Your task to perform on an android device: Show the shopping cart on walmart.com. Search for "duracell triple a" on walmart.com, select the first entry, add it to the cart, then select checkout. Image 0: 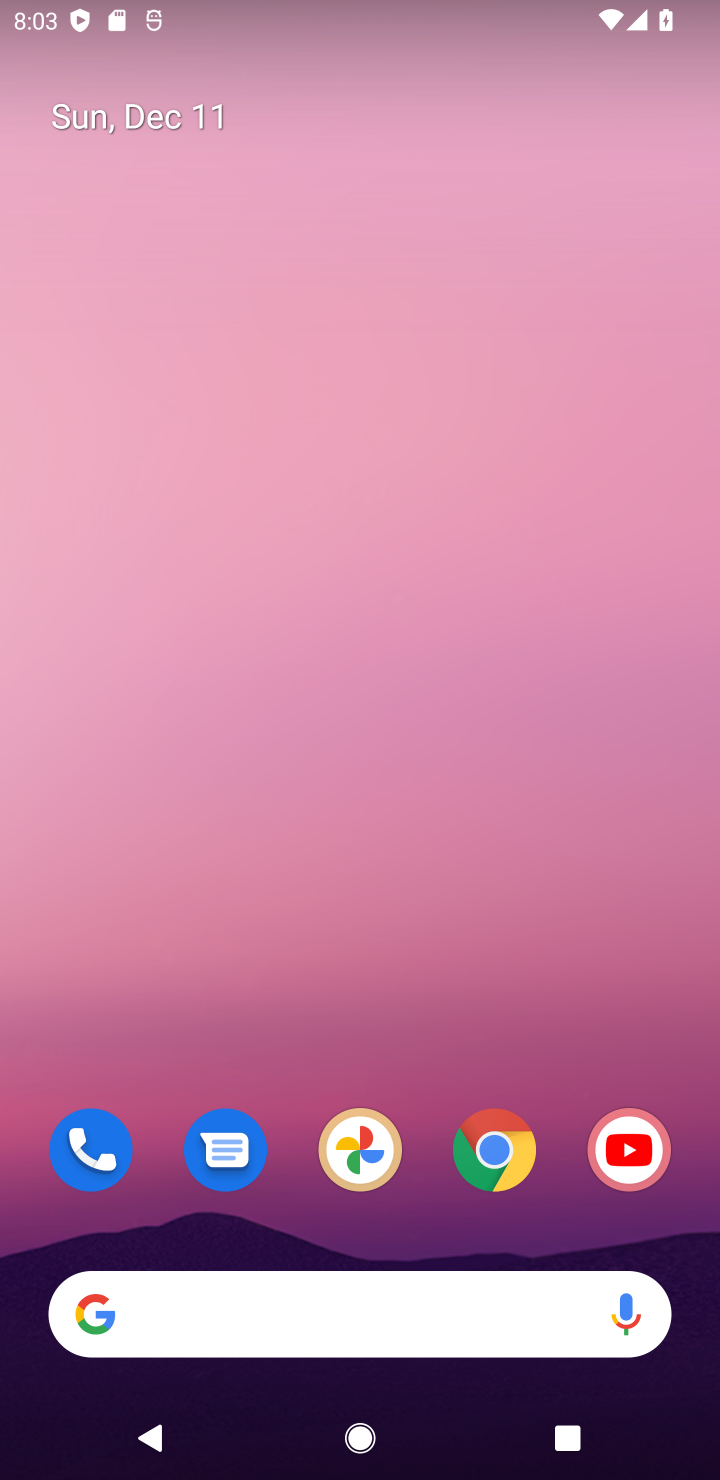
Step 0: click (488, 1150)
Your task to perform on an android device: Show the shopping cart on walmart.com. Search for "duracell triple a" on walmart.com, select the first entry, add it to the cart, then select checkout. Image 1: 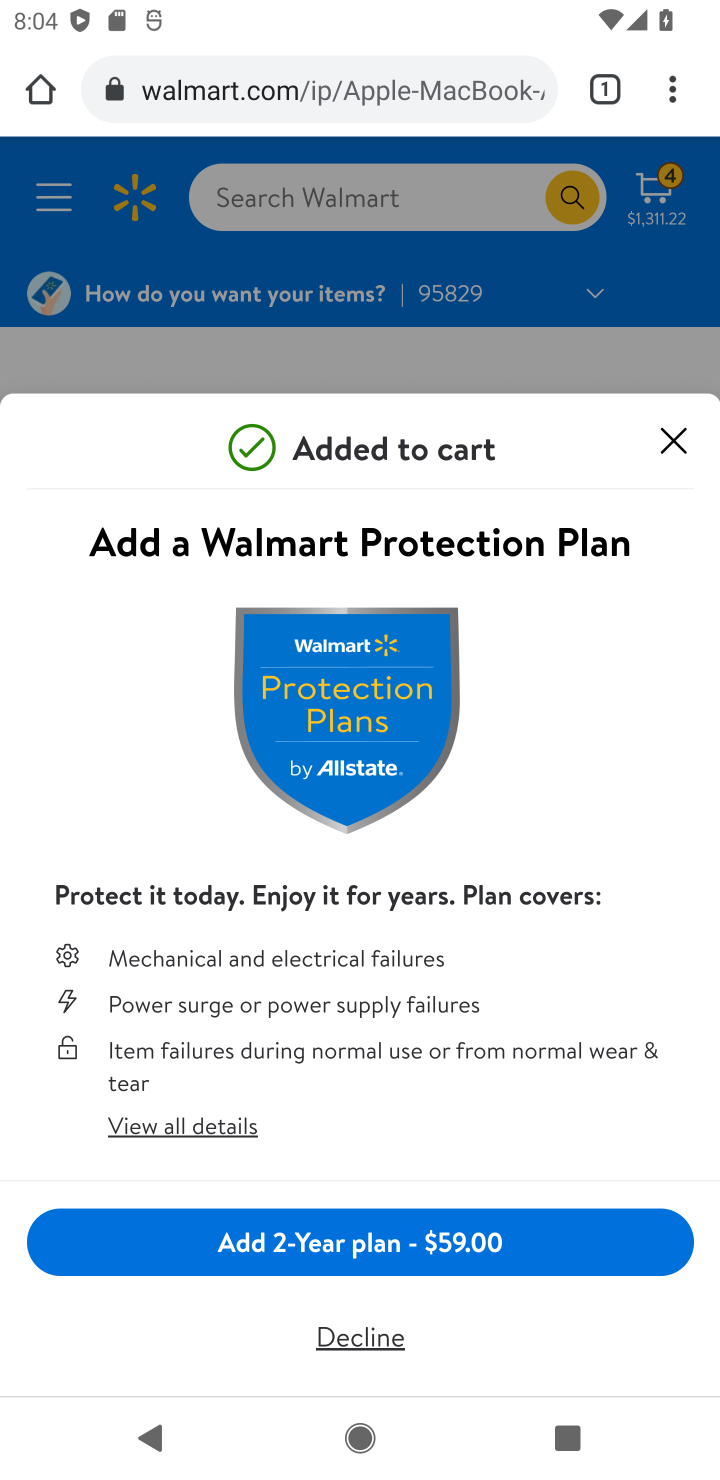
Step 1: click (408, 94)
Your task to perform on an android device: Show the shopping cart on walmart.com. Search for "duracell triple a" on walmart.com, select the first entry, add it to the cart, then select checkout. Image 2: 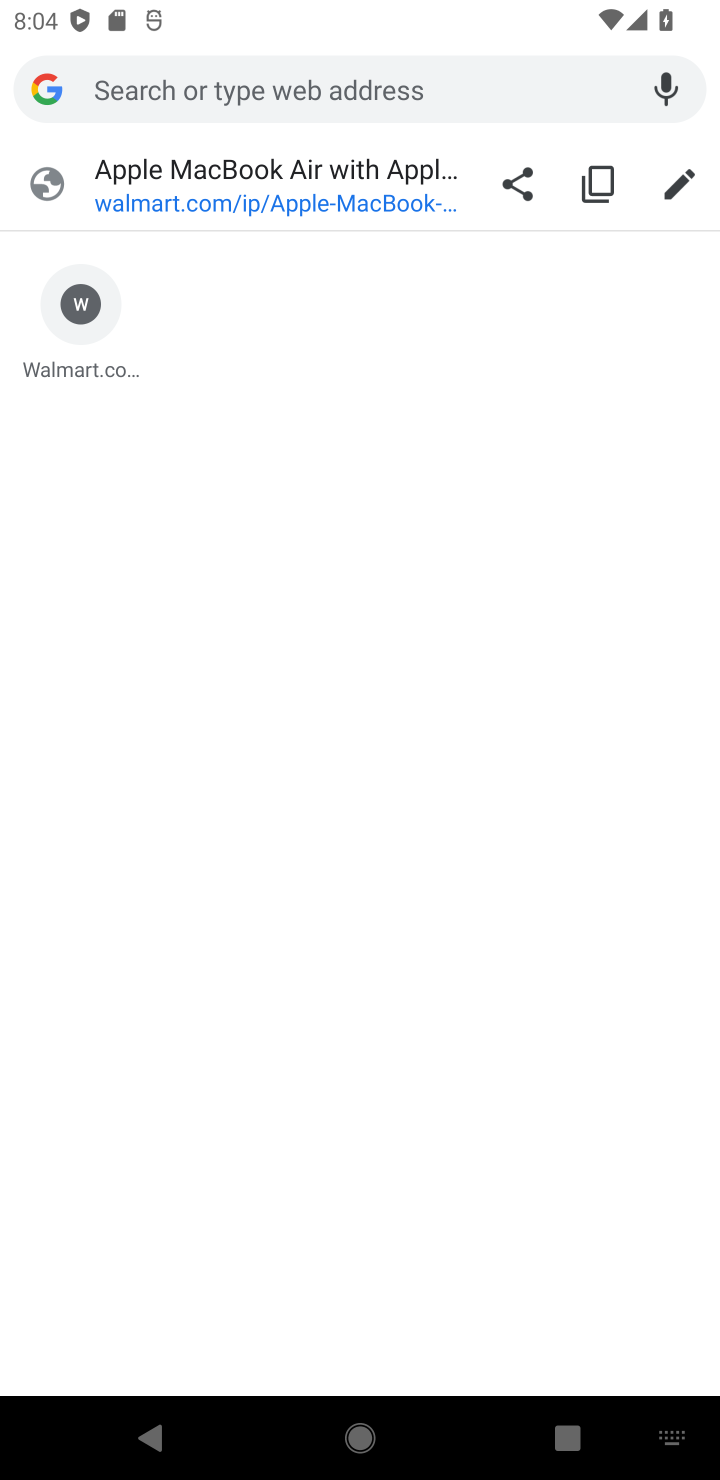
Step 2: type "walmart.com"
Your task to perform on an android device: Show the shopping cart on walmart.com. Search for "duracell triple a" on walmart.com, select the first entry, add it to the cart, then select checkout. Image 3: 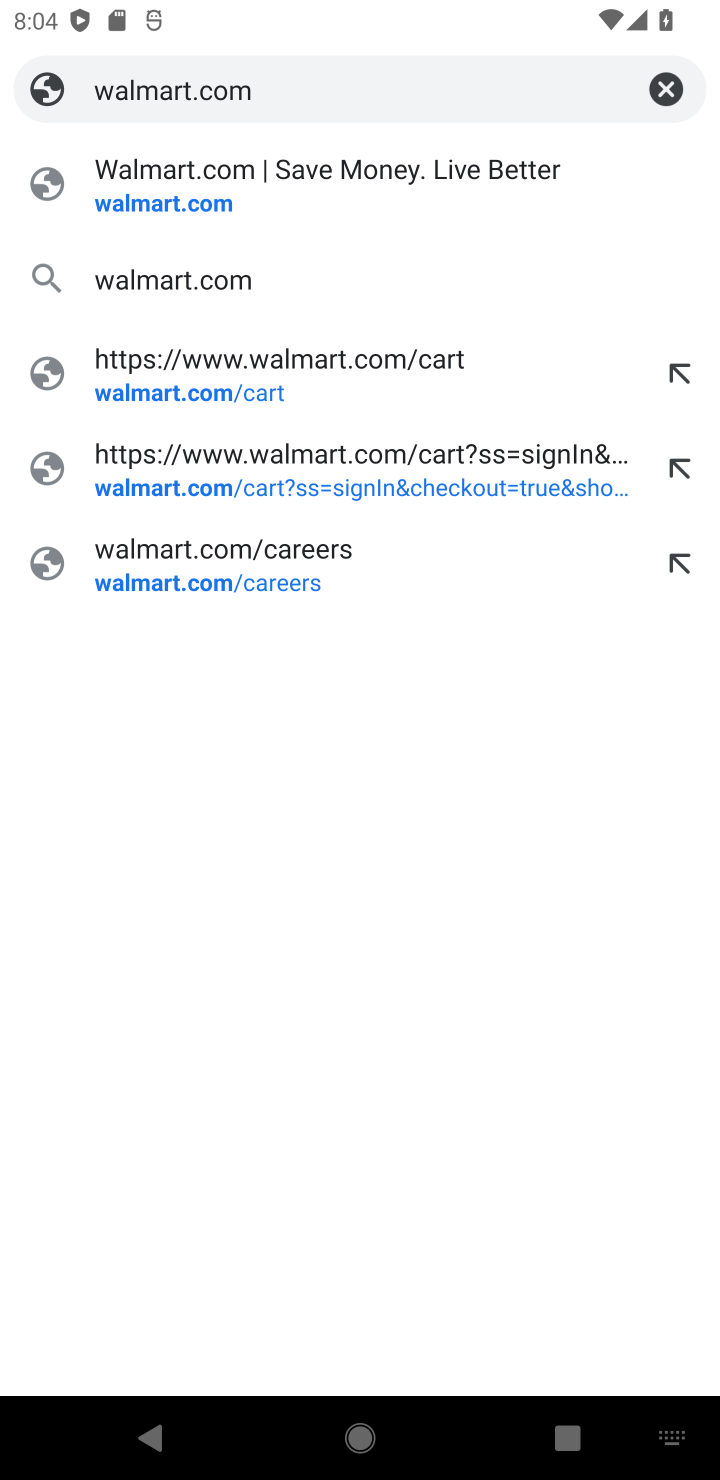
Step 3: click (151, 264)
Your task to perform on an android device: Show the shopping cart on walmart.com. Search for "duracell triple a" on walmart.com, select the first entry, add it to the cart, then select checkout. Image 4: 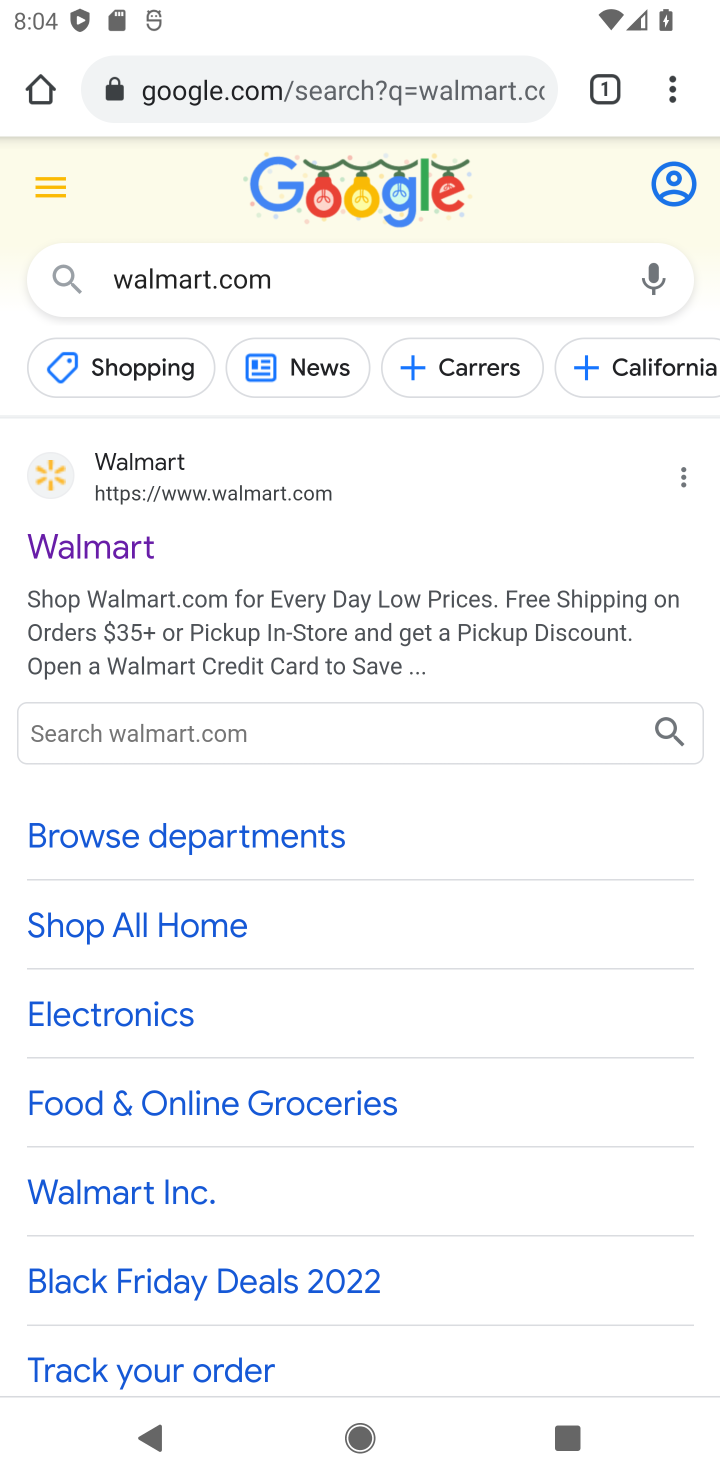
Step 4: click (111, 541)
Your task to perform on an android device: Show the shopping cart on walmart.com. Search for "duracell triple a" on walmart.com, select the first entry, add it to the cart, then select checkout. Image 5: 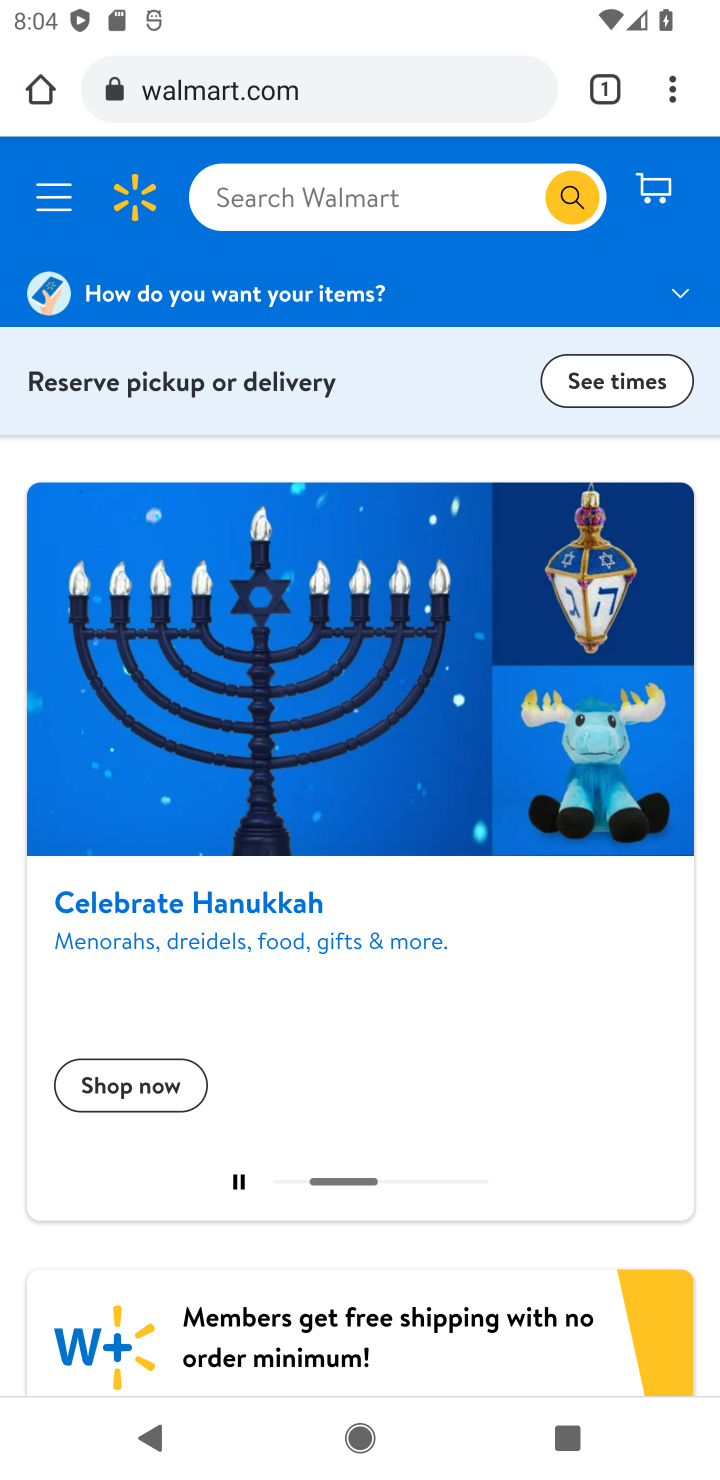
Step 5: click (653, 191)
Your task to perform on an android device: Show the shopping cart on walmart.com. Search for "duracell triple a" on walmart.com, select the first entry, add it to the cart, then select checkout. Image 6: 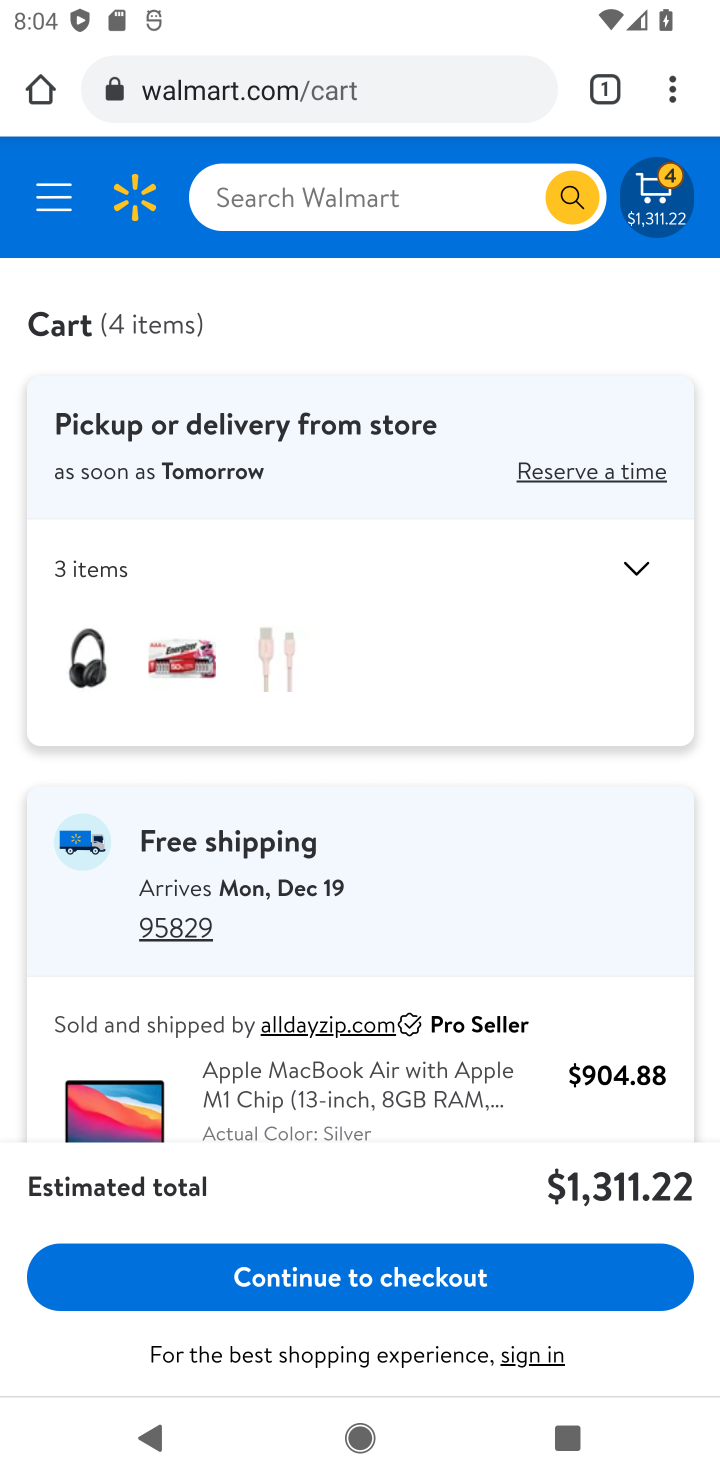
Step 6: click (380, 194)
Your task to perform on an android device: Show the shopping cart on walmart.com. Search for "duracell triple a" on walmart.com, select the first entry, add it to the cart, then select checkout. Image 7: 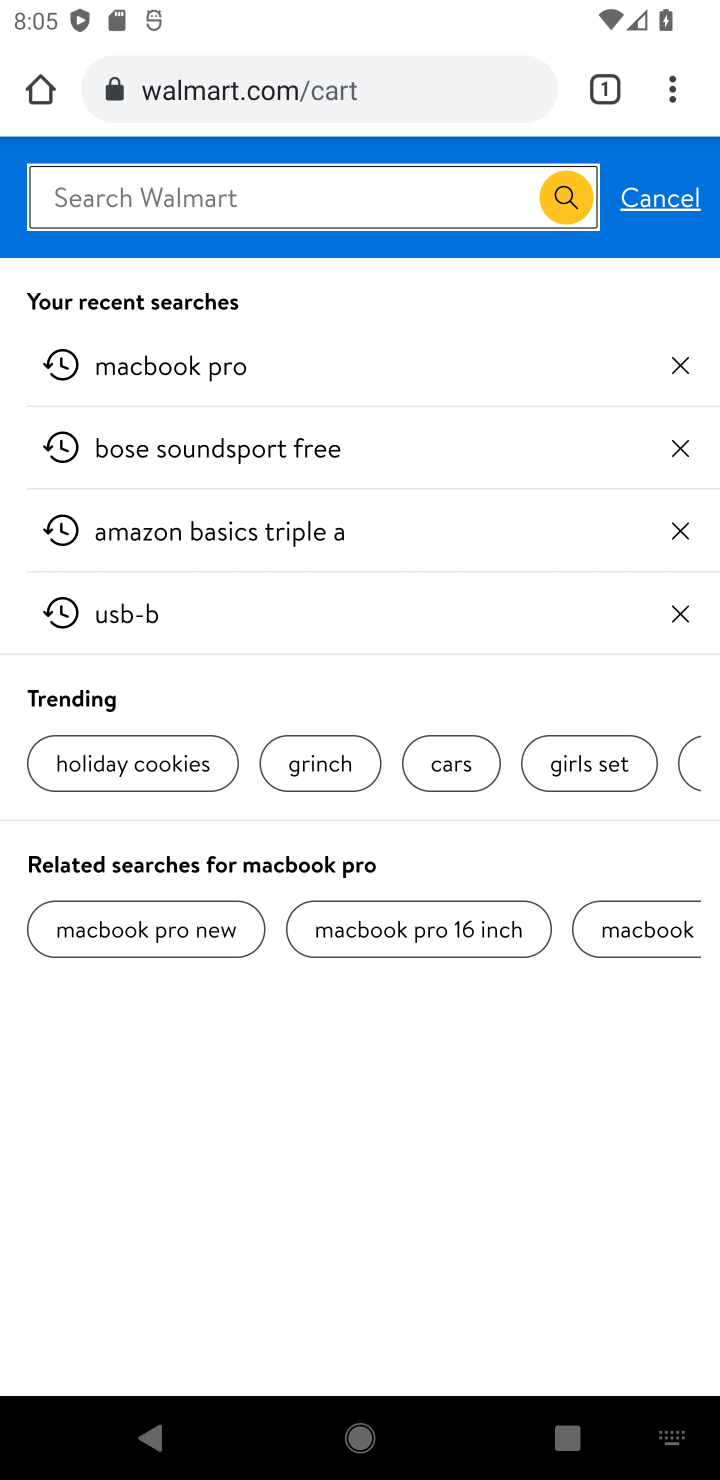
Step 7: type "duracell triple a"
Your task to perform on an android device: Show the shopping cart on walmart.com. Search for "duracell triple a" on walmart.com, select the first entry, add it to the cart, then select checkout. Image 8: 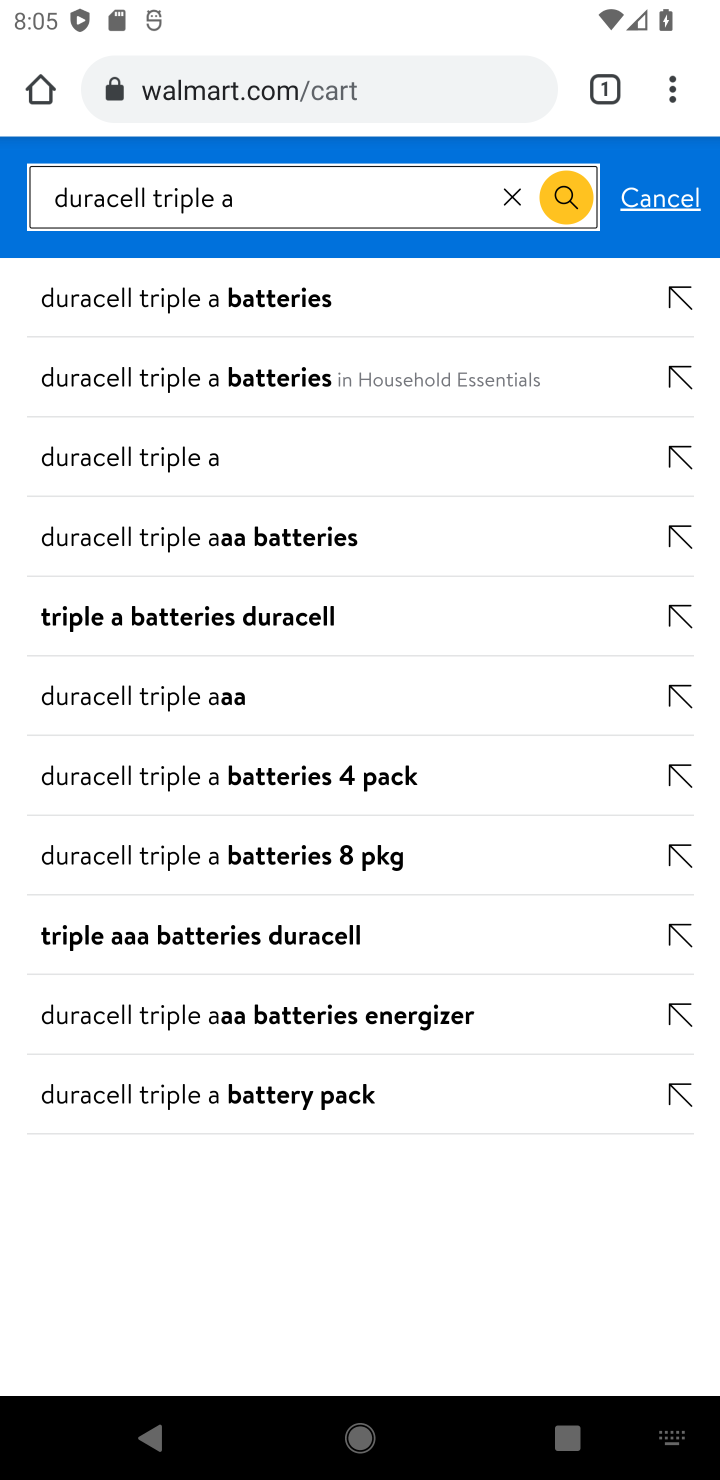
Step 8: click (574, 204)
Your task to perform on an android device: Show the shopping cart on walmart.com. Search for "duracell triple a" on walmart.com, select the first entry, add it to the cart, then select checkout. Image 9: 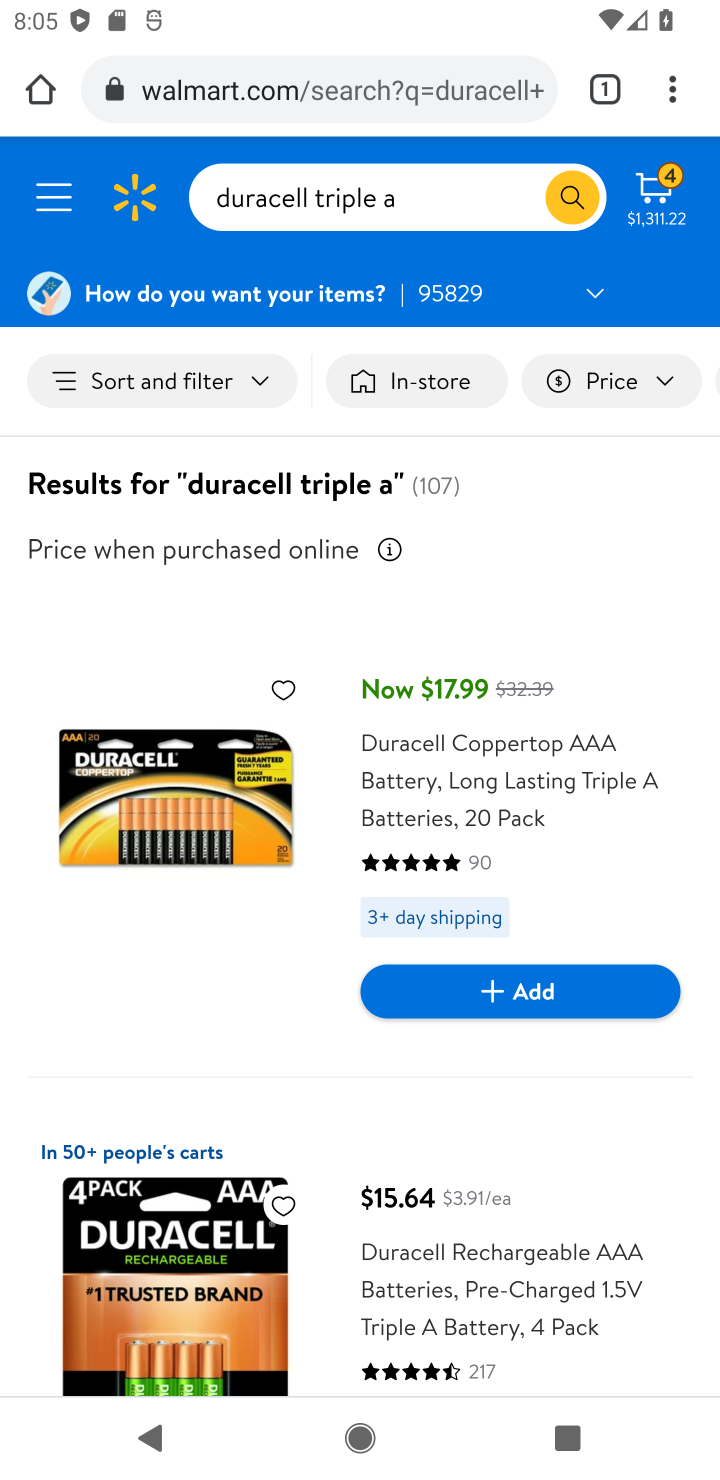
Step 9: click (522, 740)
Your task to perform on an android device: Show the shopping cart on walmart.com. Search for "duracell triple a" on walmart.com, select the first entry, add it to the cart, then select checkout. Image 10: 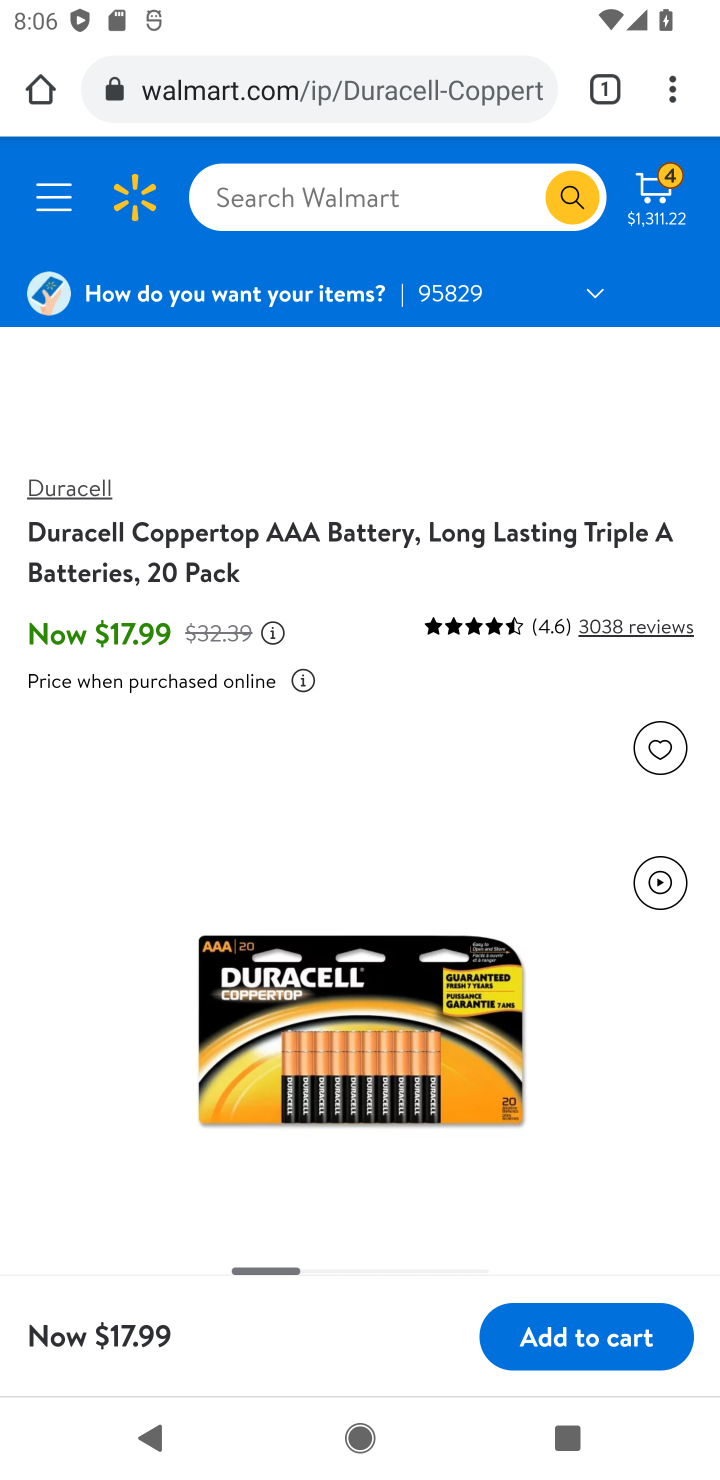
Step 10: click (623, 1331)
Your task to perform on an android device: Show the shopping cart on walmart.com. Search for "duracell triple a" on walmart.com, select the first entry, add it to the cart, then select checkout. Image 11: 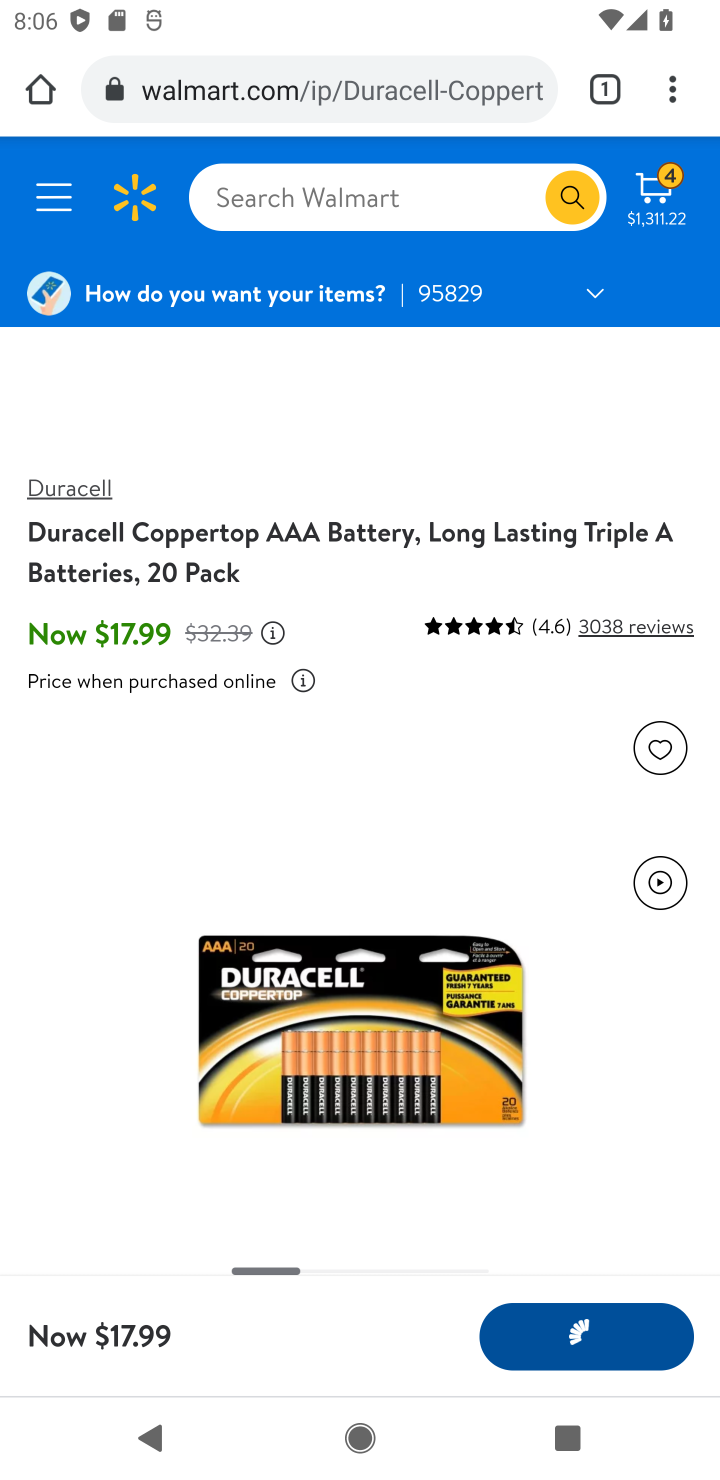
Step 11: click (677, 191)
Your task to perform on an android device: Show the shopping cart on walmart.com. Search for "duracell triple a" on walmart.com, select the first entry, add it to the cart, then select checkout. Image 12: 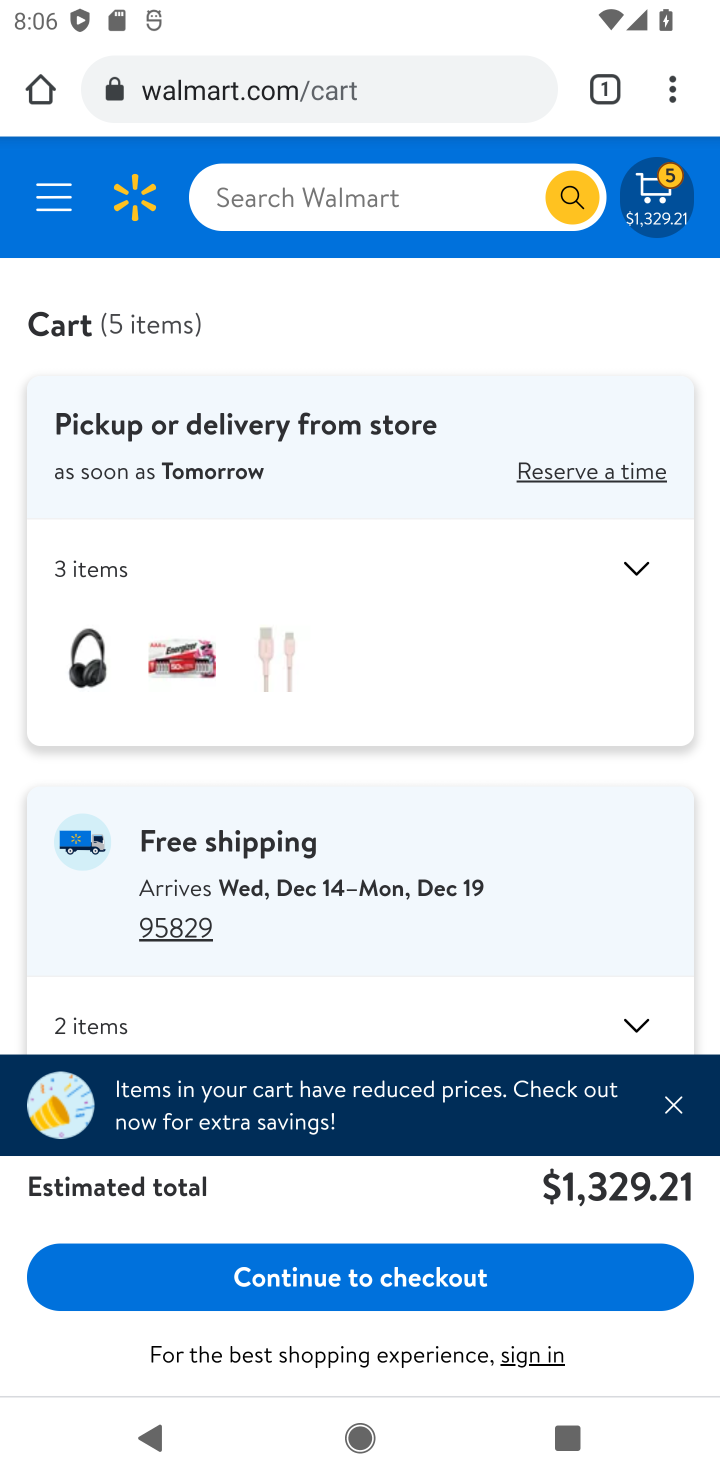
Step 12: click (405, 1278)
Your task to perform on an android device: Show the shopping cart on walmart.com. Search for "duracell triple a" on walmart.com, select the first entry, add it to the cart, then select checkout. Image 13: 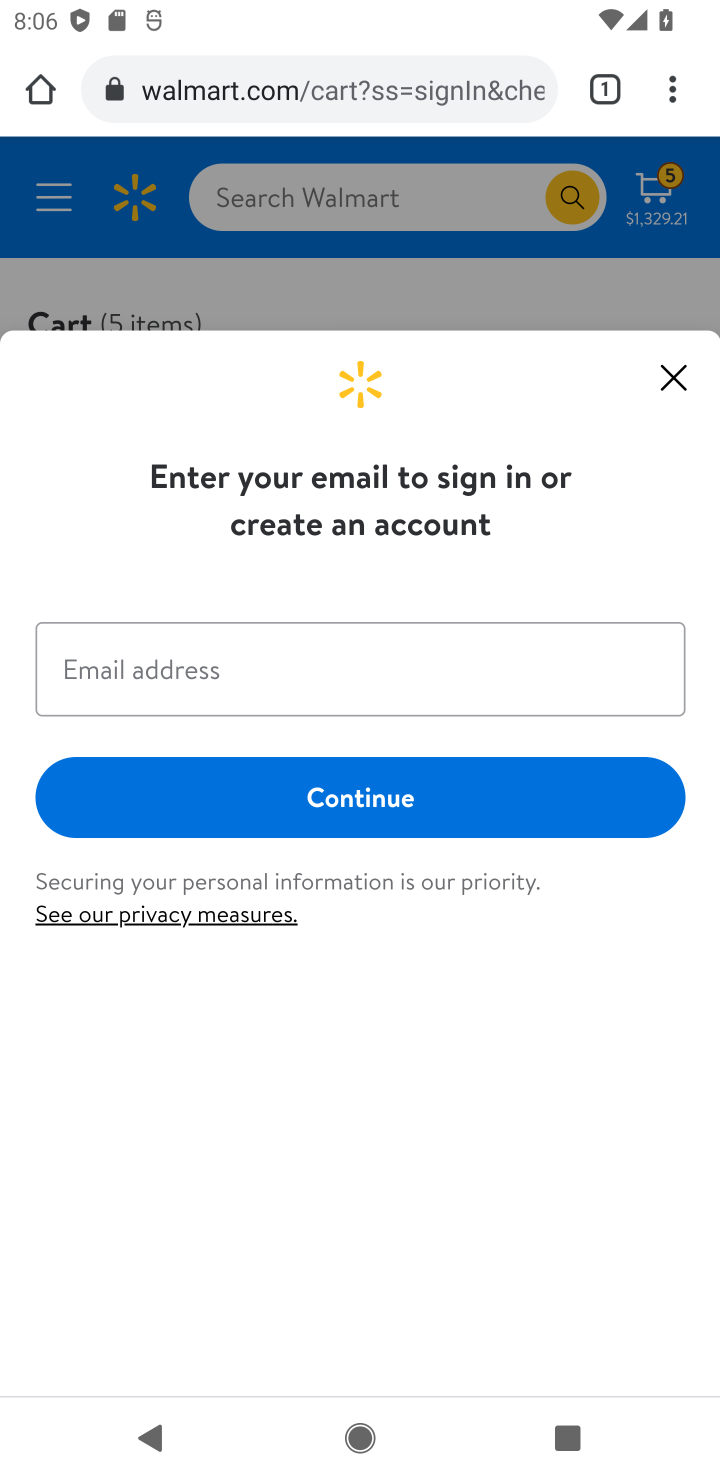
Step 13: task complete